Your task to perform on an android device: turn off data saver in the chrome app Image 0: 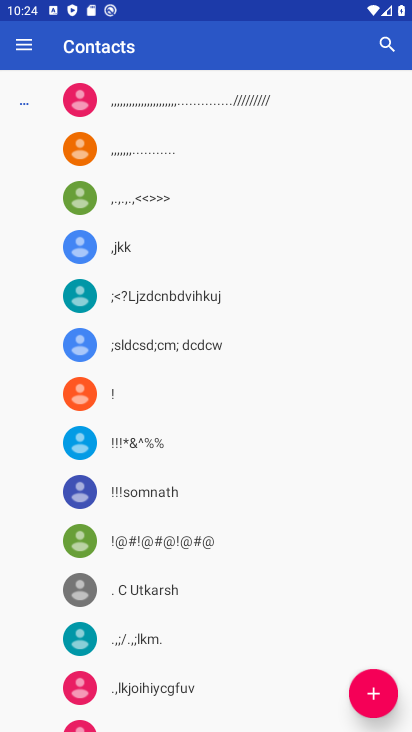
Step 0: press home button
Your task to perform on an android device: turn off data saver in the chrome app Image 1: 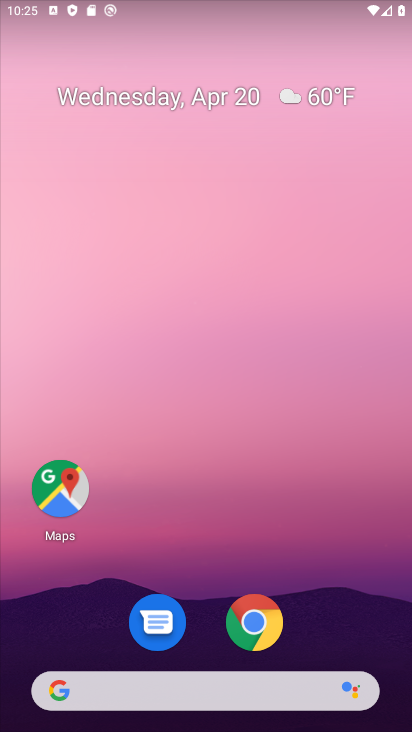
Step 1: drag from (369, 593) to (253, 99)
Your task to perform on an android device: turn off data saver in the chrome app Image 2: 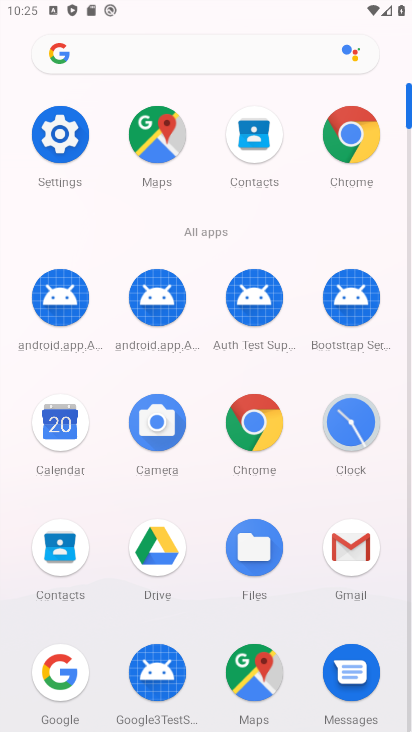
Step 2: click (351, 132)
Your task to perform on an android device: turn off data saver in the chrome app Image 3: 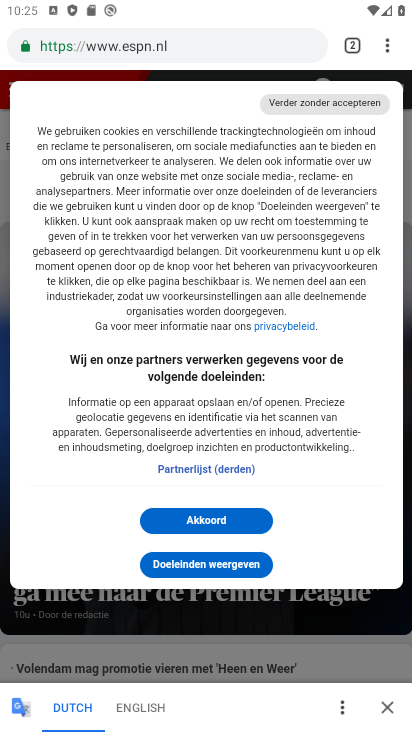
Step 3: drag from (390, 54) to (288, 564)
Your task to perform on an android device: turn off data saver in the chrome app Image 4: 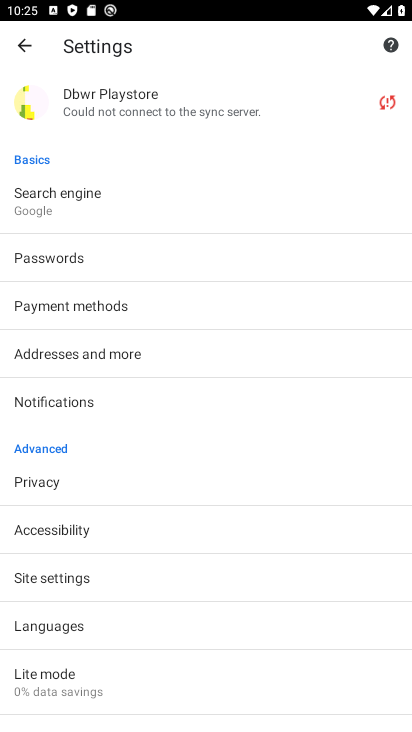
Step 4: click (114, 690)
Your task to perform on an android device: turn off data saver in the chrome app Image 5: 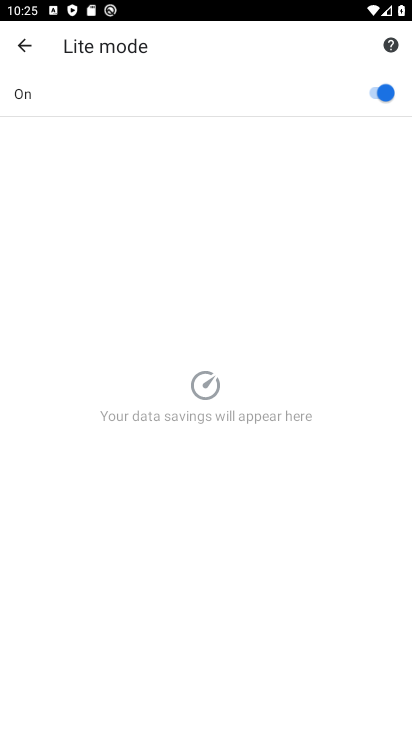
Step 5: click (384, 99)
Your task to perform on an android device: turn off data saver in the chrome app Image 6: 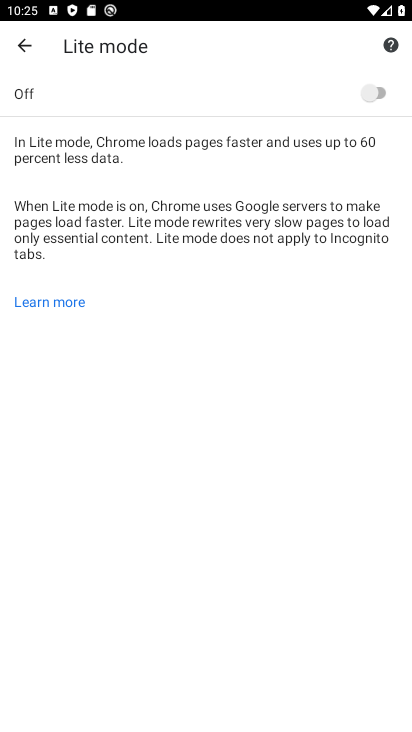
Step 6: task complete